Your task to perform on an android device: turn off priority inbox in the gmail app Image 0: 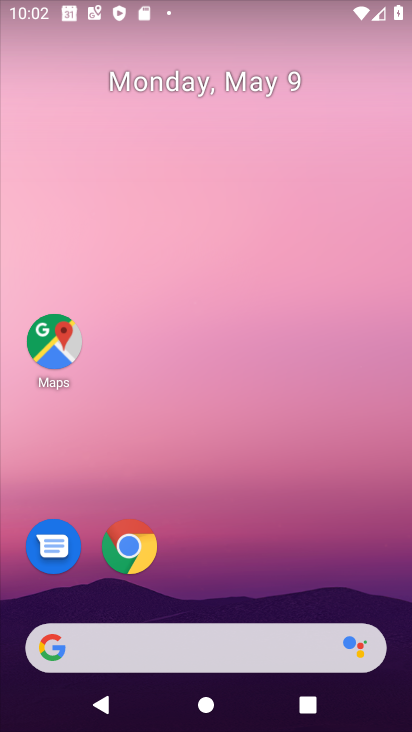
Step 0: drag from (256, 708) to (355, 94)
Your task to perform on an android device: turn off priority inbox in the gmail app Image 1: 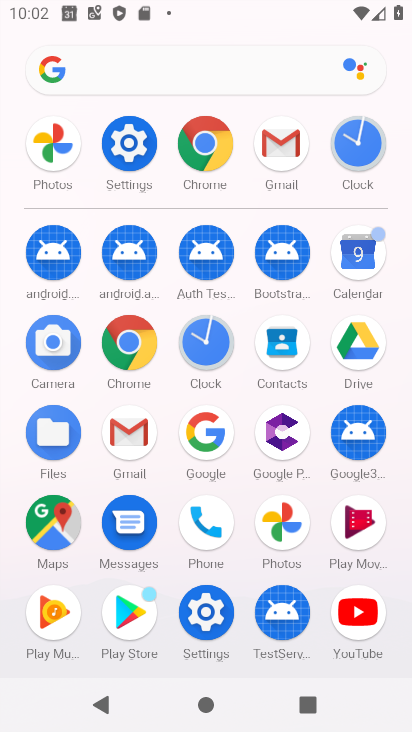
Step 1: click (273, 138)
Your task to perform on an android device: turn off priority inbox in the gmail app Image 2: 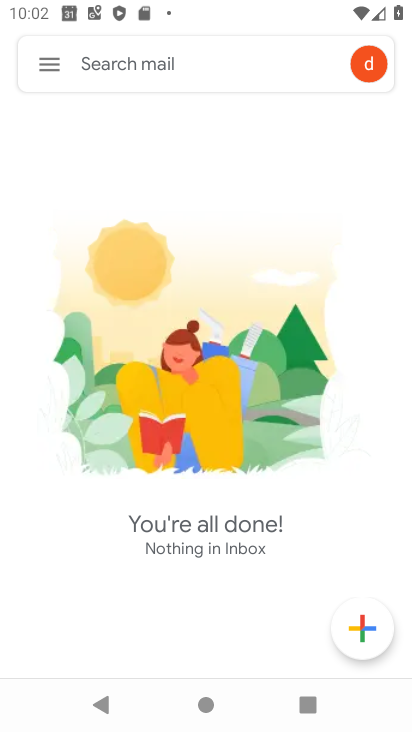
Step 2: click (55, 55)
Your task to perform on an android device: turn off priority inbox in the gmail app Image 3: 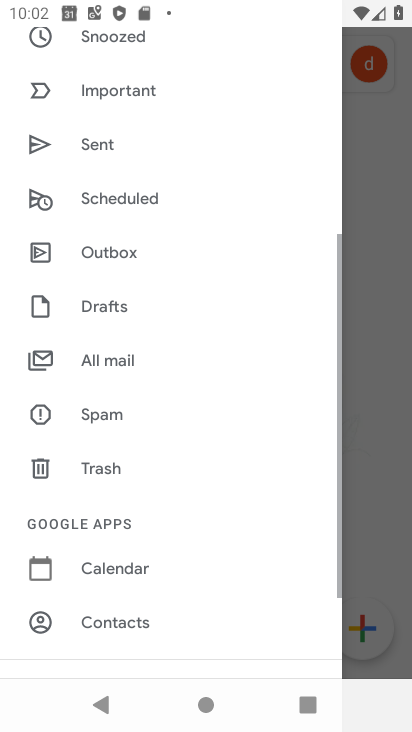
Step 3: drag from (169, 606) to (229, 109)
Your task to perform on an android device: turn off priority inbox in the gmail app Image 4: 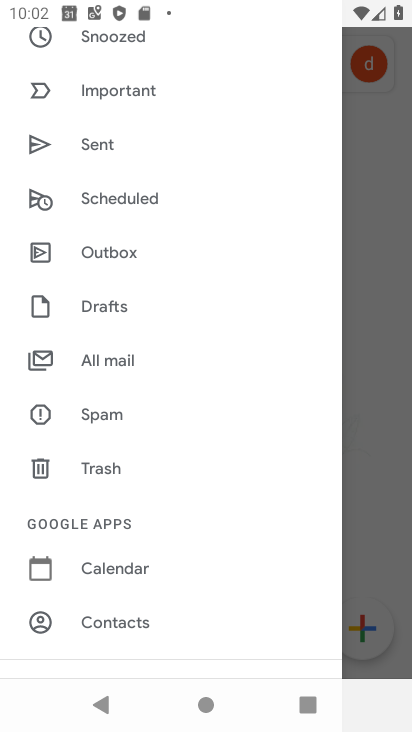
Step 4: drag from (172, 633) to (163, 13)
Your task to perform on an android device: turn off priority inbox in the gmail app Image 5: 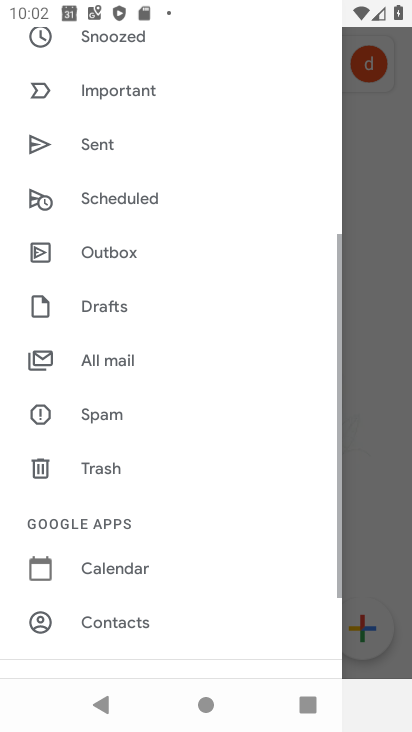
Step 5: drag from (97, 451) to (266, 44)
Your task to perform on an android device: turn off priority inbox in the gmail app Image 6: 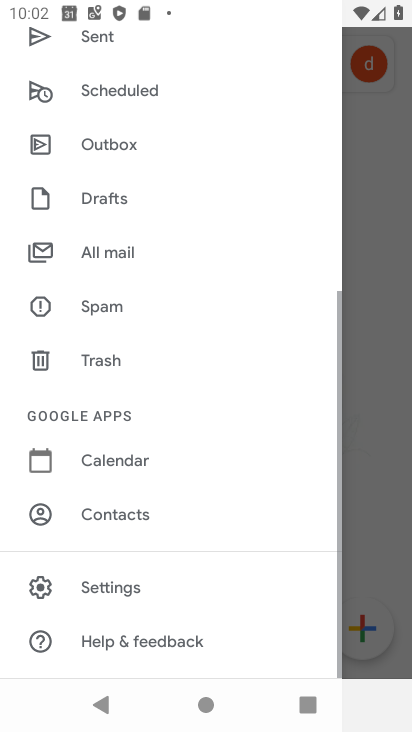
Step 6: click (112, 589)
Your task to perform on an android device: turn off priority inbox in the gmail app Image 7: 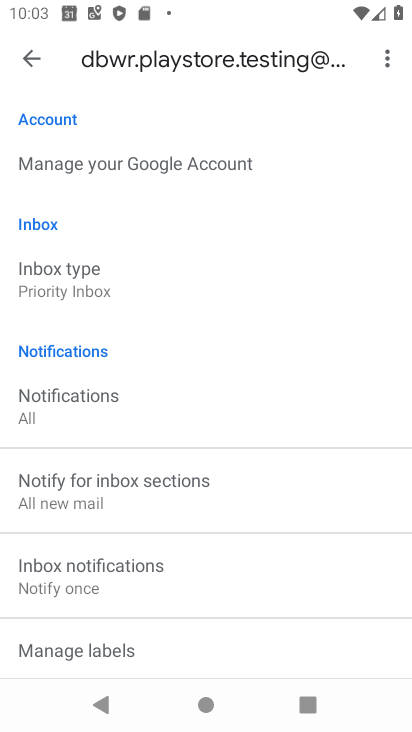
Step 7: click (66, 275)
Your task to perform on an android device: turn off priority inbox in the gmail app Image 8: 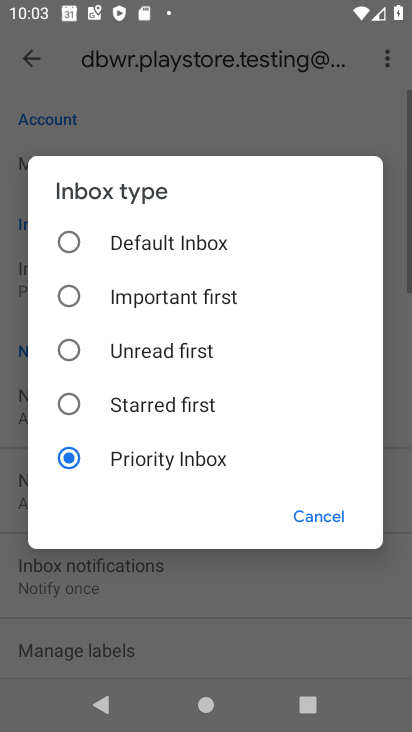
Step 8: click (184, 246)
Your task to perform on an android device: turn off priority inbox in the gmail app Image 9: 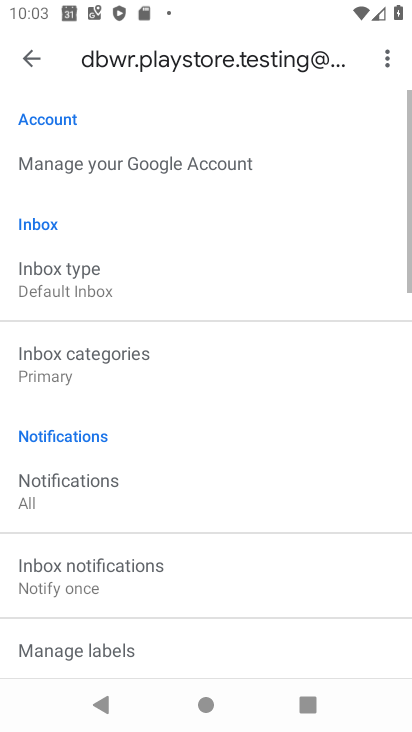
Step 9: task complete